Your task to perform on an android device: What's on my calendar tomorrow? Image 0: 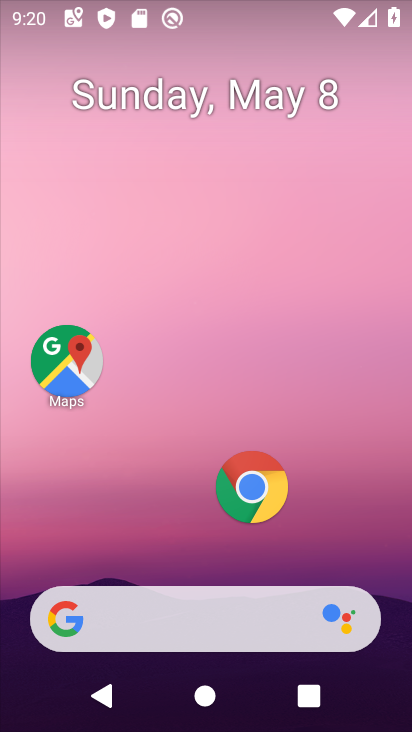
Step 0: drag from (185, 552) to (244, 47)
Your task to perform on an android device: What's on my calendar tomorrow? Image 1: 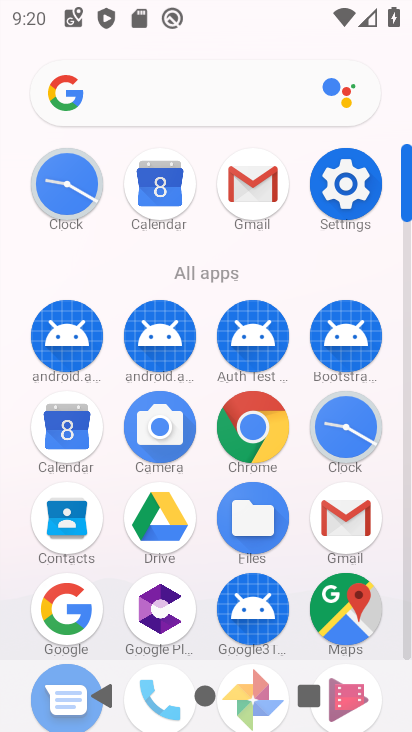
Step 1: click (170, 194)
Your task to perform on an android device: What's on my calendar tomorrow? Image 2: 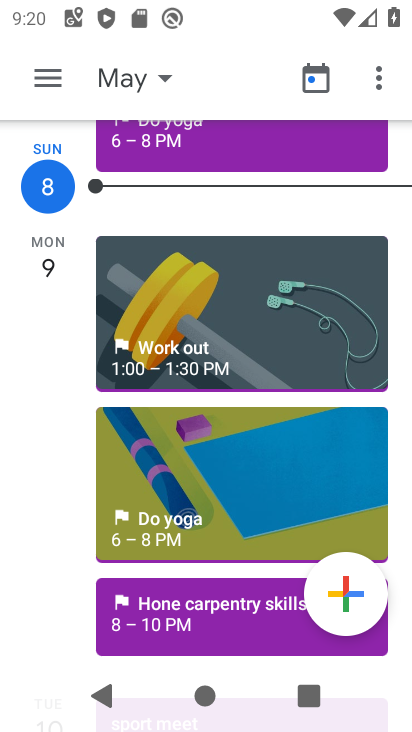
Step 2: task complete